Your task to perform on an android device: set the stopwatch Image 0: 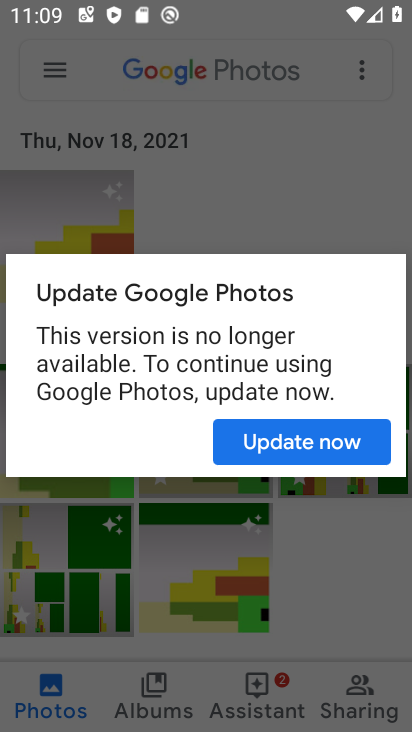
Step 0: press home button
Your task to perform on an android device: set the stopwatch Image 1: 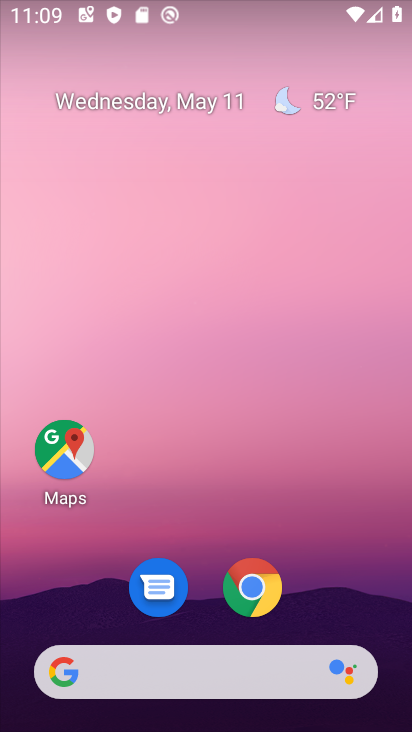
Step 1: drag from (171, 710) to (253, 345)
Your task to perform on an android device: set the stopwatch Image 2: 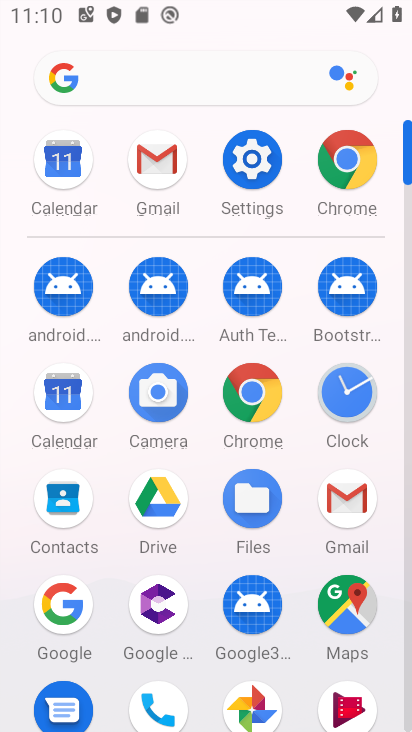
Step 2: click (341, 385)
Your task to perform on an android device: set the stopwatch Image 3: 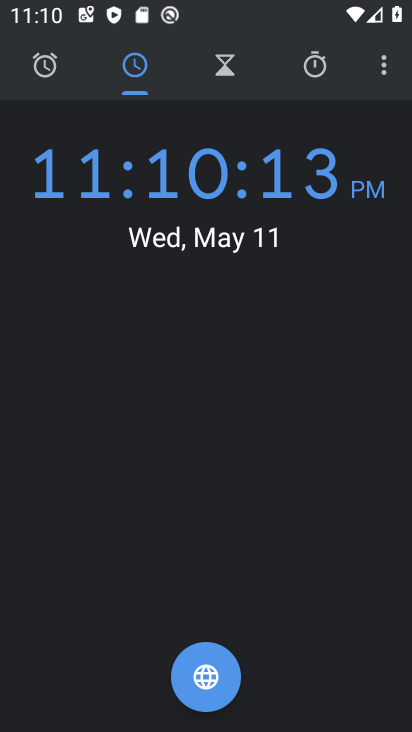
Step 3: click (294, 70)
Your task to perform on an android device: set the stopwatch Image 4: 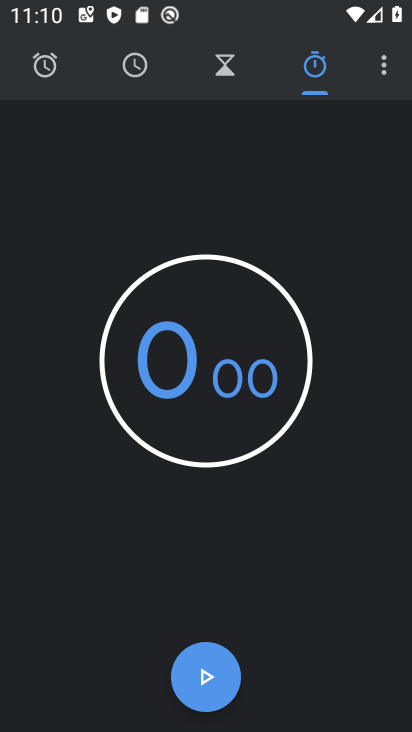
Step 4: click (197, 676)
Your task to perform on an android device: set the stopwatch Image 5: 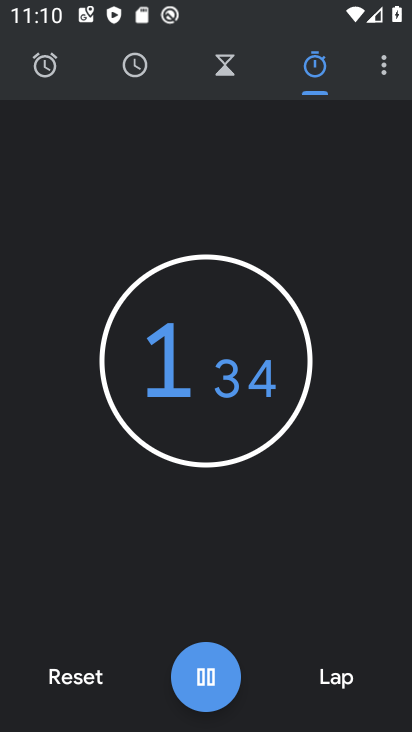
Step 5: click (197, 678)
Your task to perform on an android device: set the stopwatch Image 6: 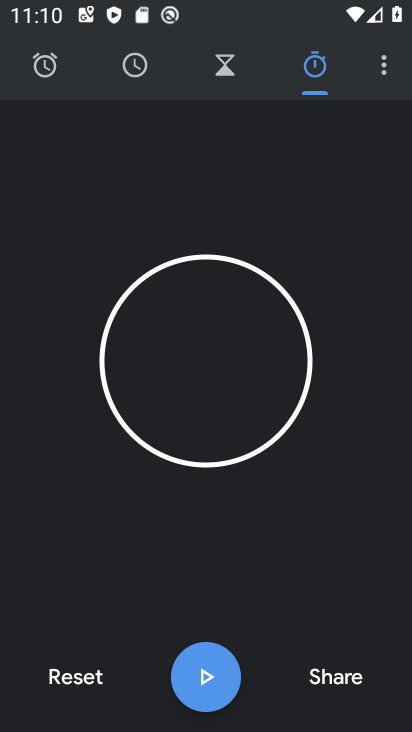
Step 6: task complete